Your task to perform on an android device: Open Google Chrome Image 0: 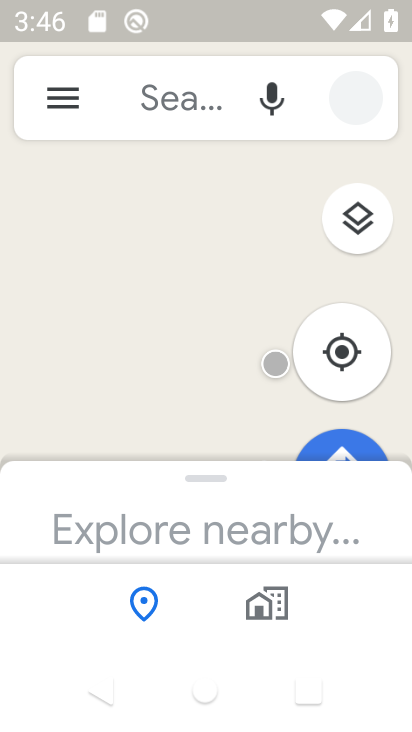
Step 0: press home button
Your task to perform on an android device: Open Google Chrome Image 1: 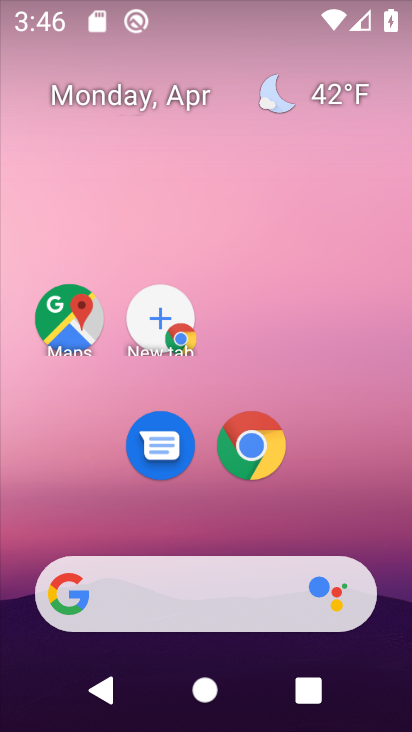
Step 1: click (248, 453)
Your task to perform on an android device: Open Google Chrome Image 2: 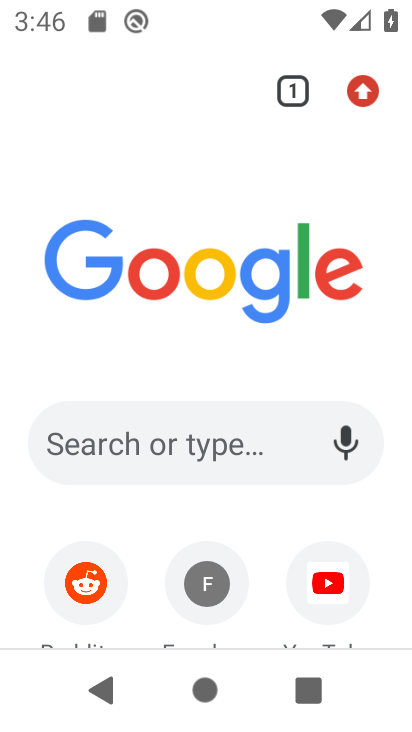
Step 2: task complete